Your task to perform on an android device: Go to Wikipedia Image 0: 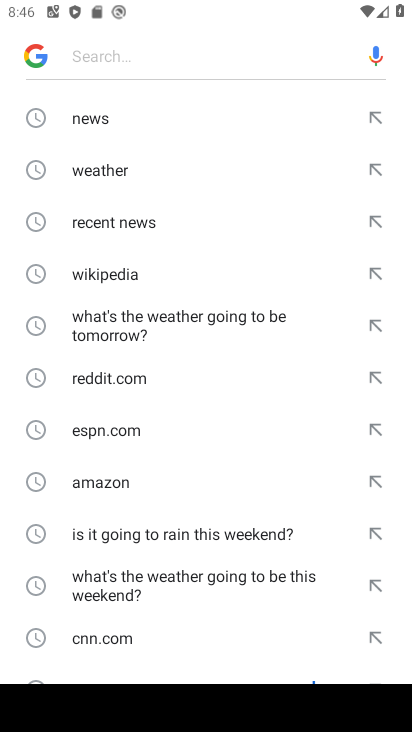
Step 0: press home button
Your task to perform on an android device: Go to Wikipedia Image 1: 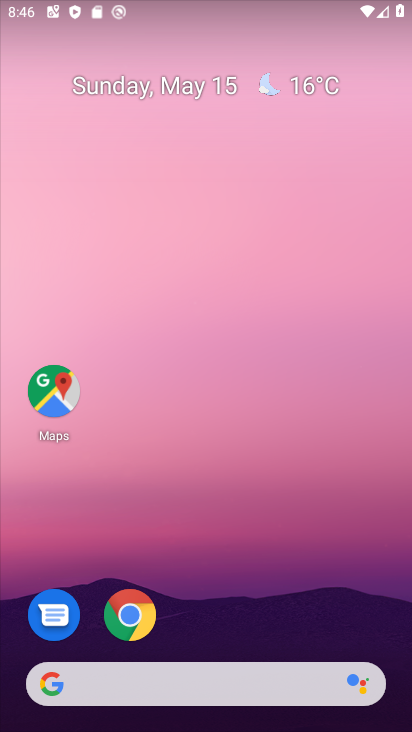
Step 1: click (131, 612)
Your task to perform on an android device: Go to Wikipedia Image 2: 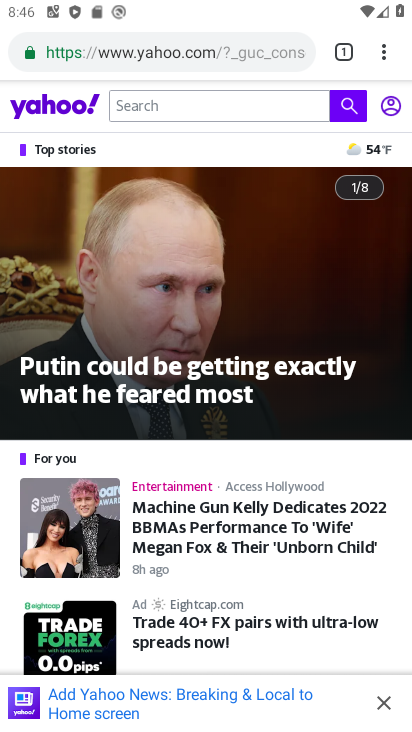
Step 2: click (349, 44)
Your task to perform on an android device: Go to Wikipedia Image 3: 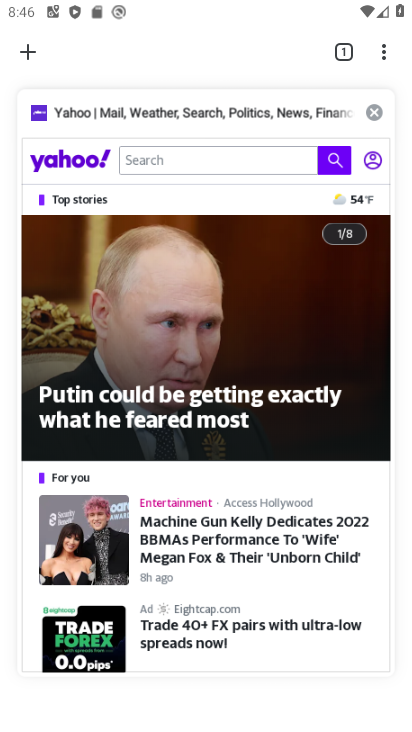
Step 3: click (380, 112)
Your task to perform on an android device: Go to Wikipedia Image 4: 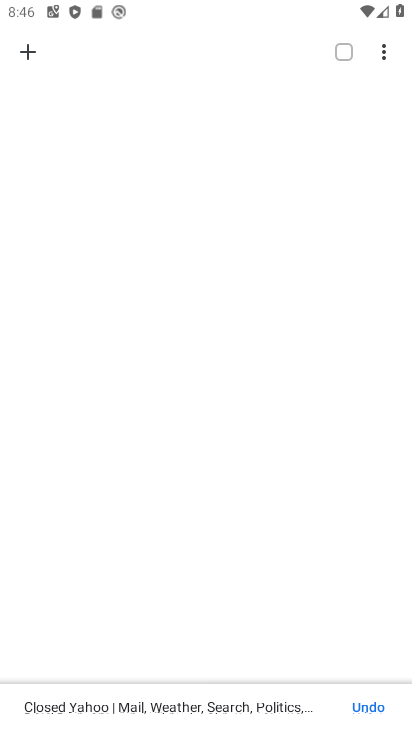
Step 4: click (32, 55)
Your task to perform on an android device: Go to Wikipedia Image 5: 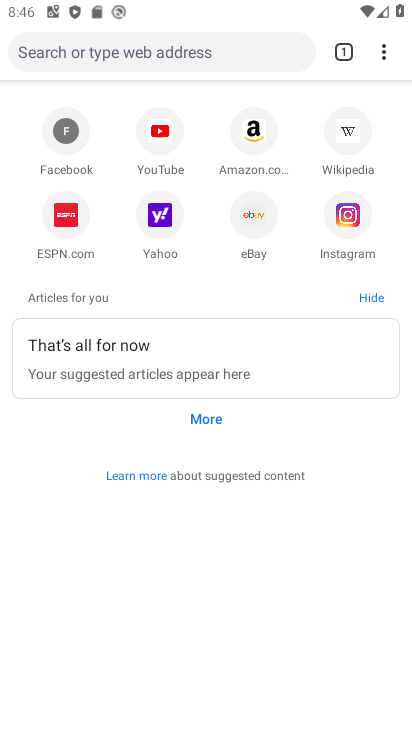
Step 5: click (353, 119)
Your task to perform on an android device: Go to Wikipedia Image 6: 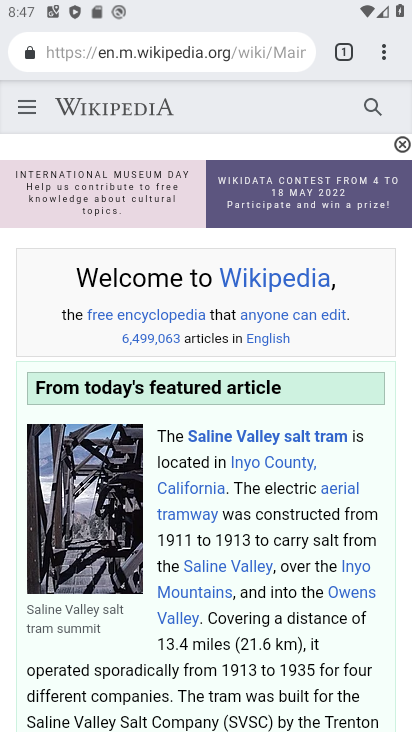
Step 6: task complete